Your task to perform on an android device: open chrome and create a bookmark for the current page Image 0: 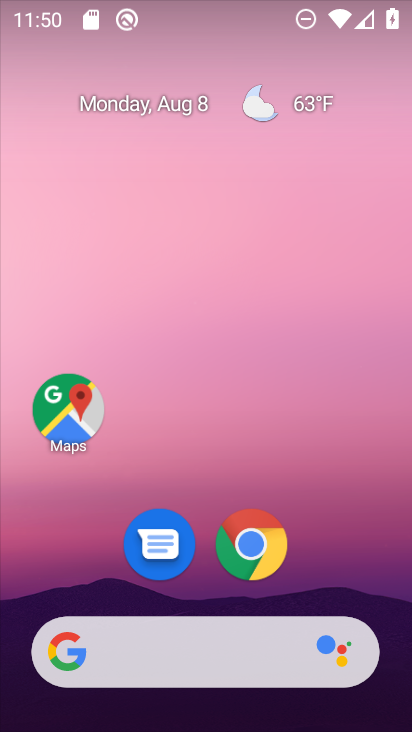
Step 0: click (250, 546)
Your task to perform on an android device: open chrome and create a bookmark for the current page Image 1: 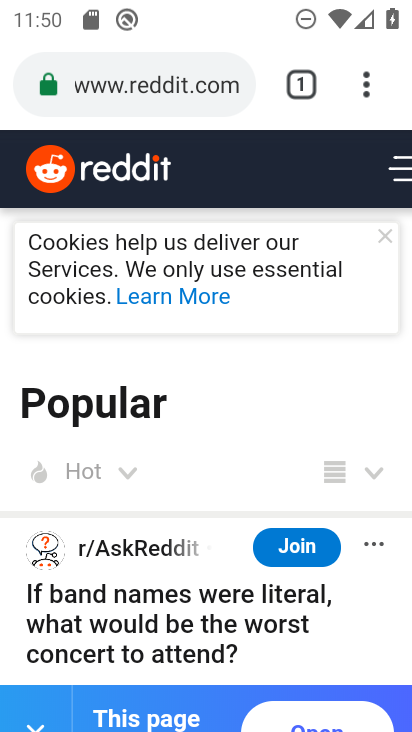
Step 1: click (367, 88)
Your task to perform on an android device: open chrome and create a bookmark for the current page Image 2: 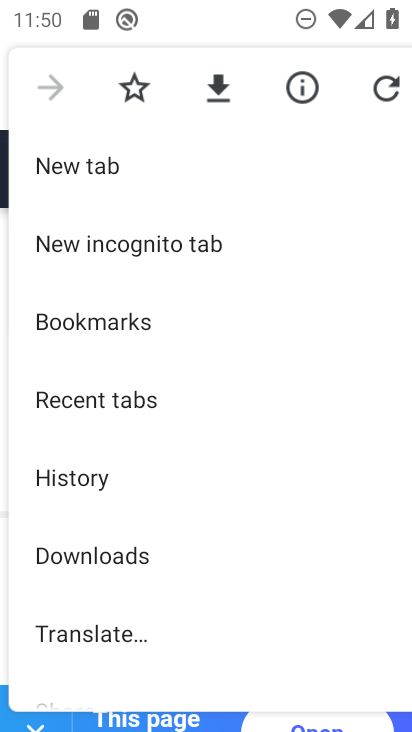
Step 2: click (135, 89)
Your task to perform on an android device: open chrome and create a bookmark for the current page Image 3: 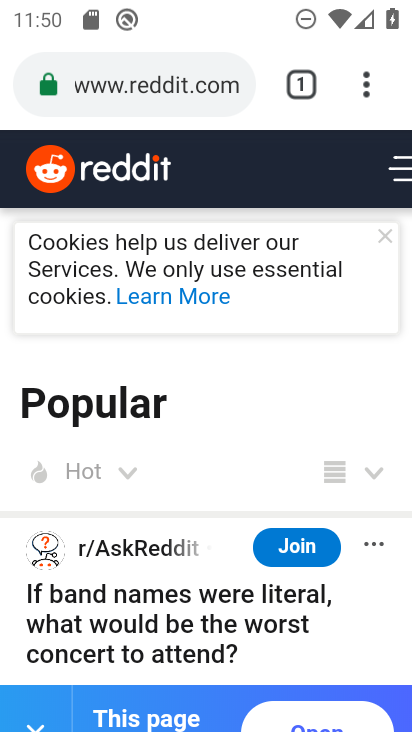
Step 3: task complete